Your task to perform on an android device: Open the phone app and click the voicemail tab. Image 0: 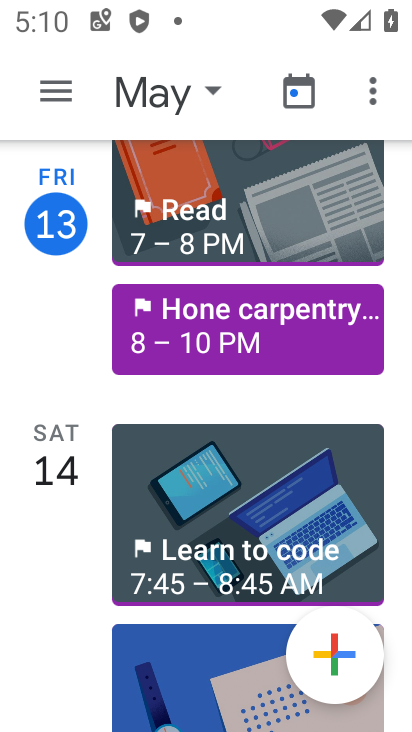
Step 0: press home button
Your task to perform on an android device: Open the phone app and click the voicemail tab. Image 1: 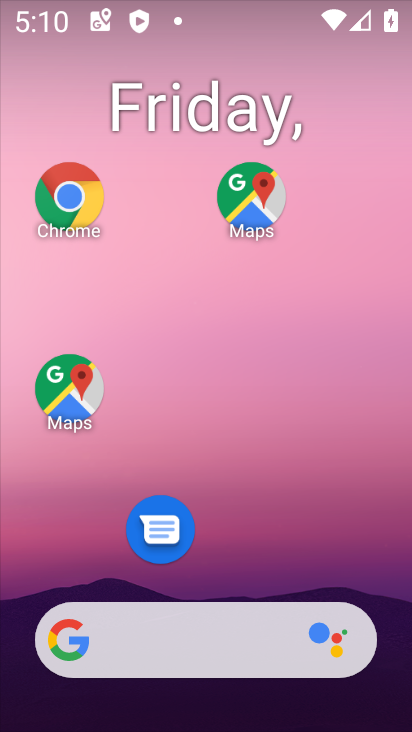
Step 1: drag from (274, 564) to (256, 225)
Your task to perform on an android device: Open the phone app and click the voicemail tab. Image 2: 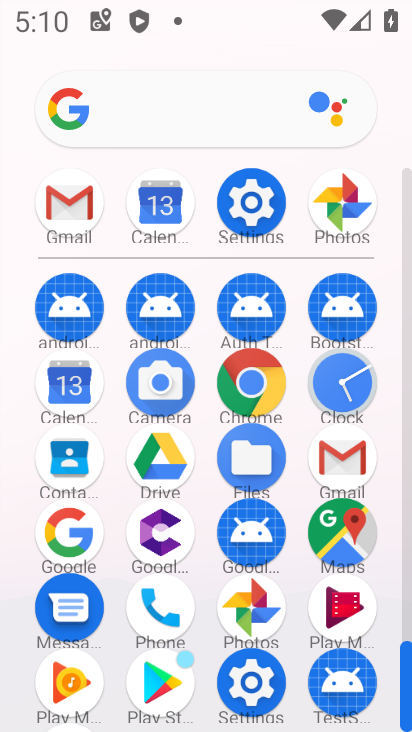
Step 2: click (152, 612)
Your task to perform on an android device: Open the phone app and click the voicemail tab. Image 3: 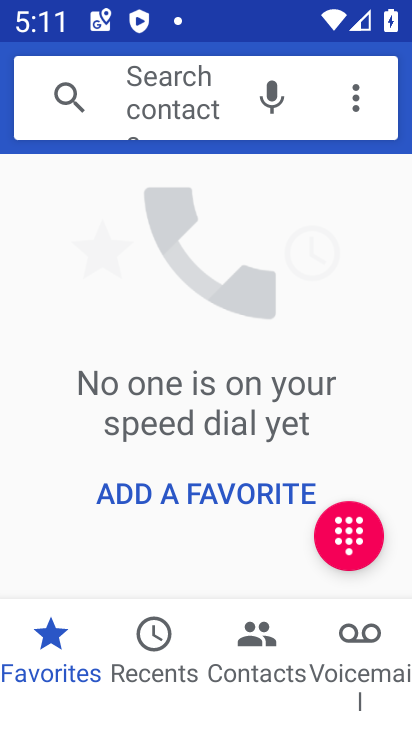
Step 3: click (343, 655)
Your task to perform on an android device: Open the phone app and click the voicemail tab. Image 4: 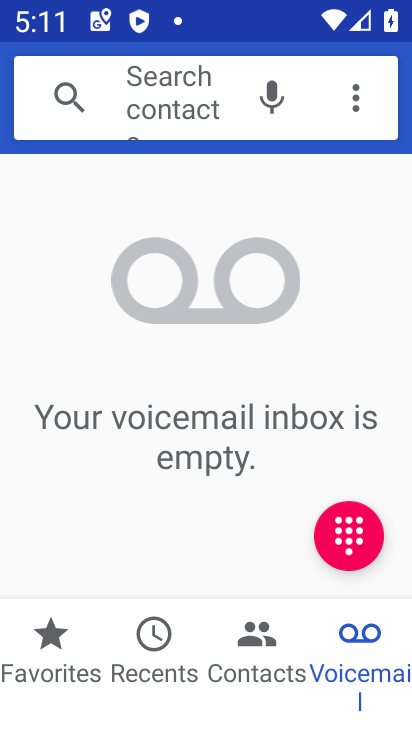
Step 4: task complete